Your task to perform on an android device: What is the news today? Image 0: 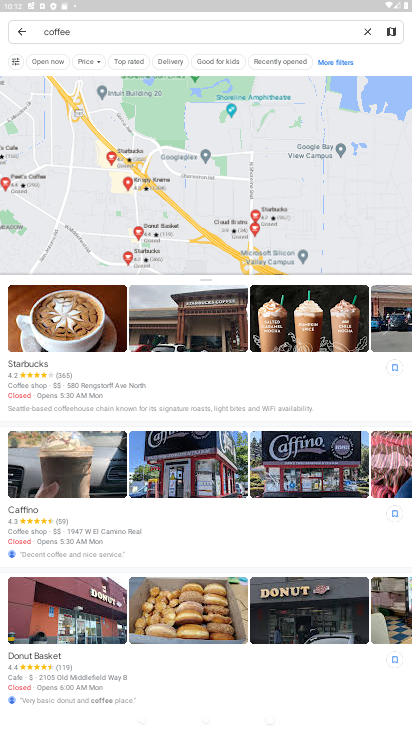
Step 0: press home button
Your task to perform on an android device: What is the news today? Image 1: 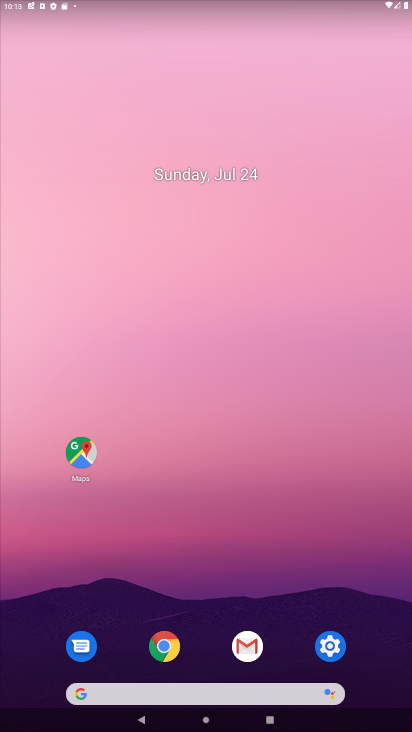
Step 1: click (142, 706)
Your task to perform on an android device: What is the news today? Image 2: 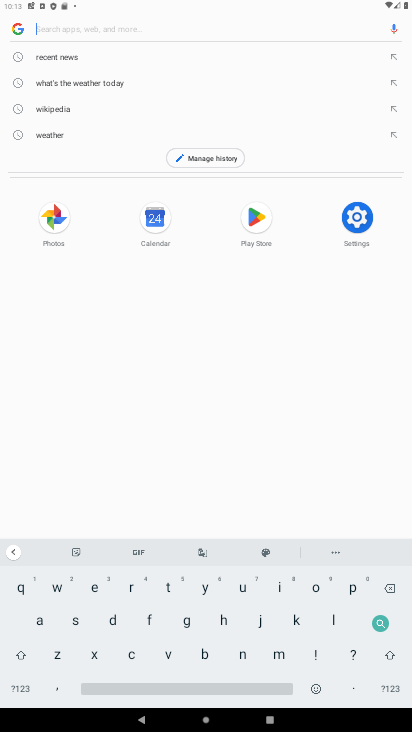
Step 2: click (244, 656)
Your task to perform on an android device: What is the news today? Image 3: 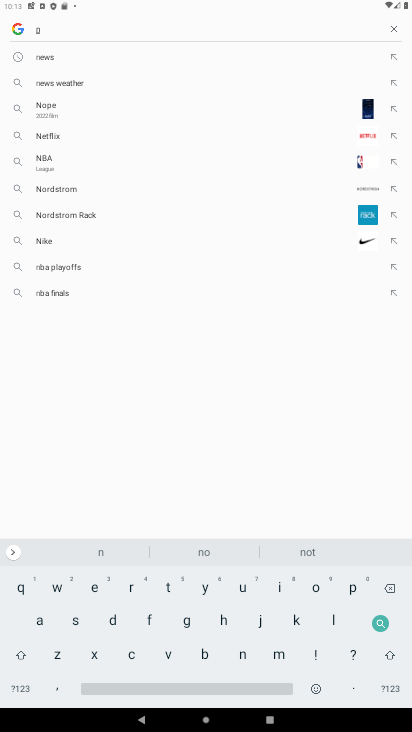
Step 3: click (57, 57)
Your task to perform on an android device: What is the news today? Image 4: 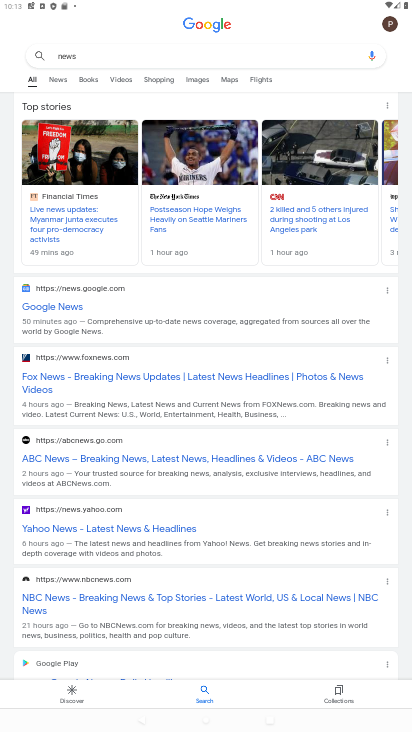
Step 4: task complete